Your task to perform on an android device: Go to Reddit.com Image 0: 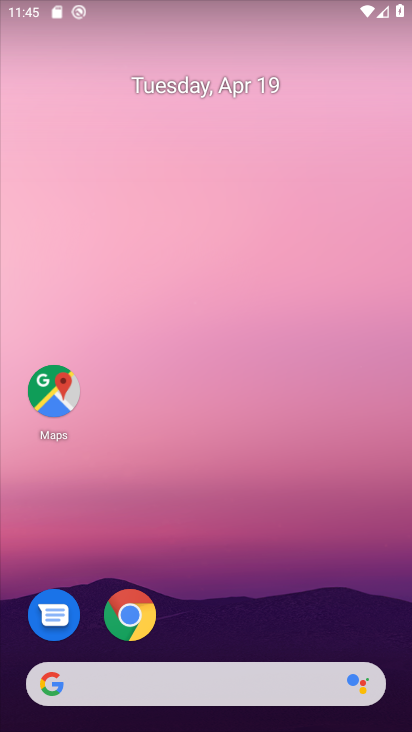
Step 0: click (142, 611)
Your task to perform on an android device: Go to Reddit.com Image 1: 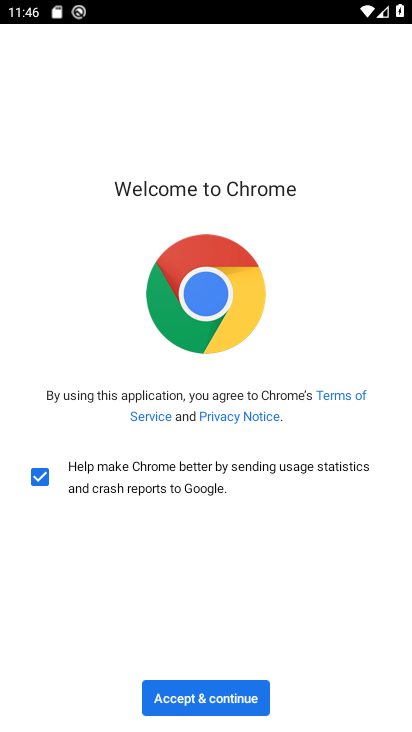
Step 1: click (215, 699)
Your task to perform on an android device: Go to Reddit.com Image 2: 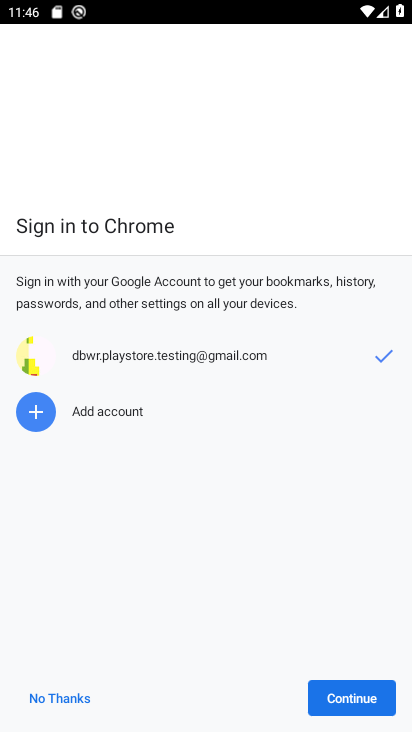
Step 2: click (363, 693)
Your task to perform on an android device: Go to Reddit.com Image 3: 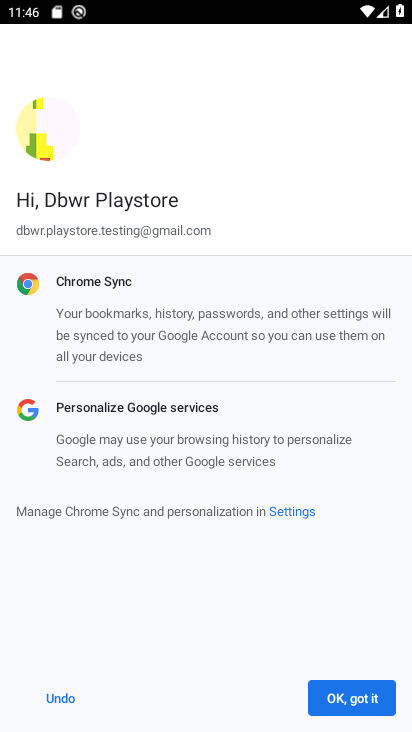
Step 3: click (371, 697)
Your task to perform on an android device: Go to Reddit.com Image 4: 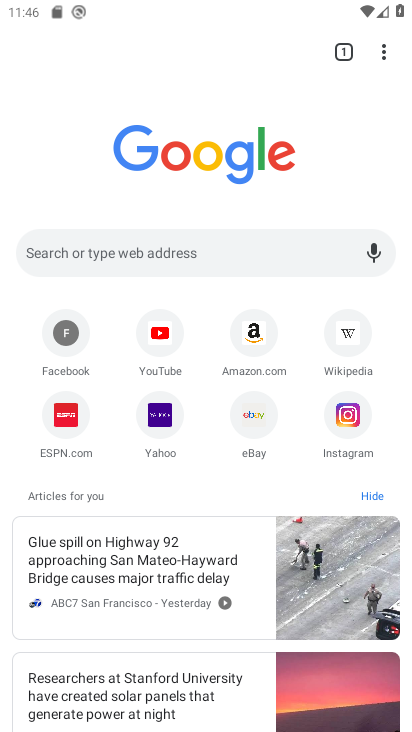
Step 4: click (226, 265)
Your task to perform on an android device: Go to Reddit.com Image 5: 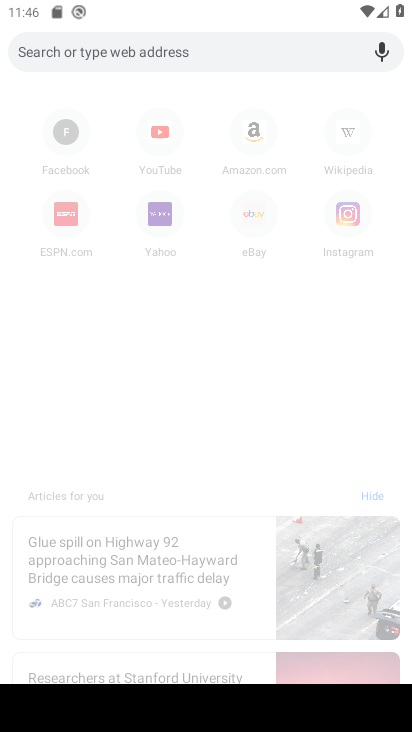
Step 5: type "reddit.com"
Your task to perform on an android device: Go to Reddit.com Image 6: 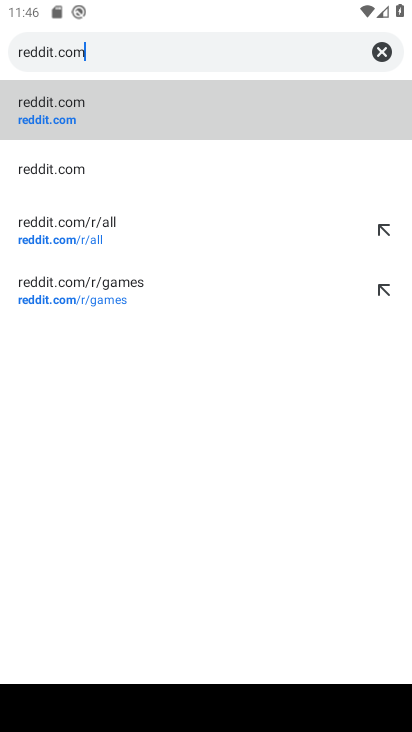
Step 6: click (111, 110)
Your task to perform on an android device: Go to Reddit.com Image 7: 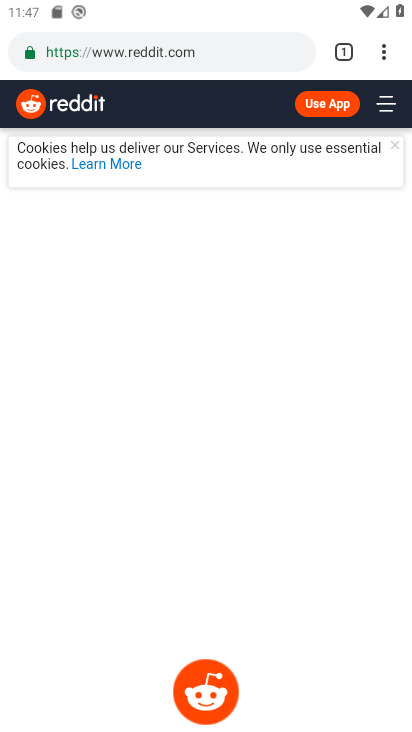
Step 7: task complete